Your task to perform on an android device: Show me the alarms in the clock app Image 0: 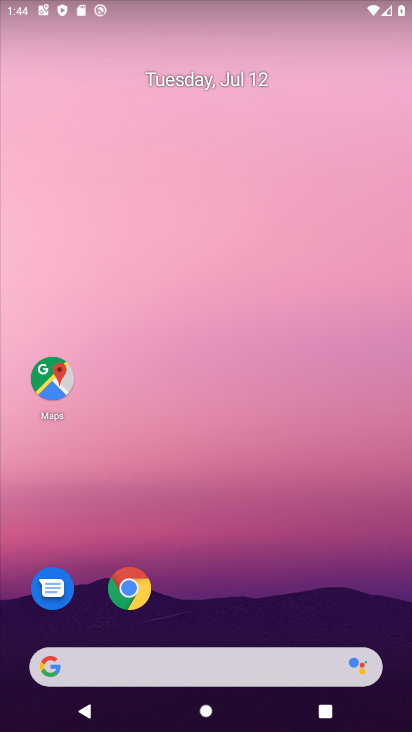
Step 0: drag from (162, 588) to (219, 172)
Your task to perform on an android device: Show me the alarms in the clock app Image 1: 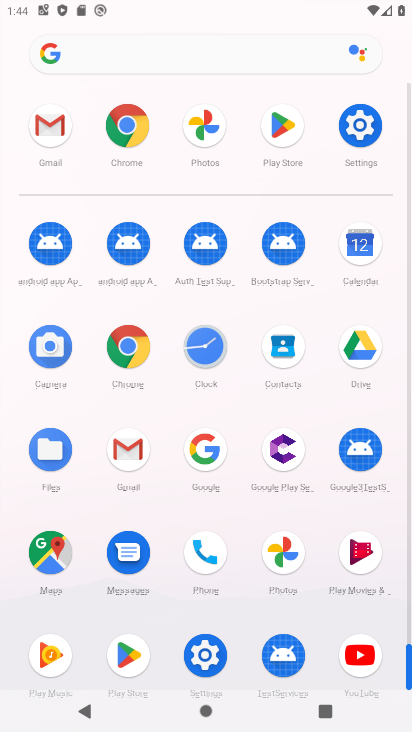
Step 1: click (213, 352)
Your task to perform on an android device: Show me the alarms in the clock app Image 2: 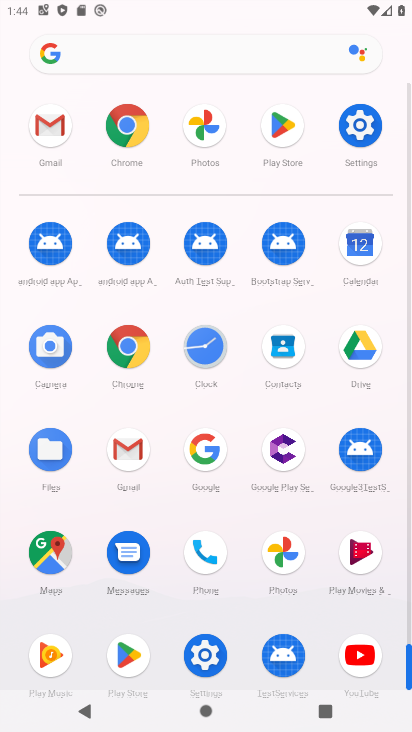
Step 2: click (211, 351)
Your task to perform on an android device: Show me the alarms in the clock app Image 3: 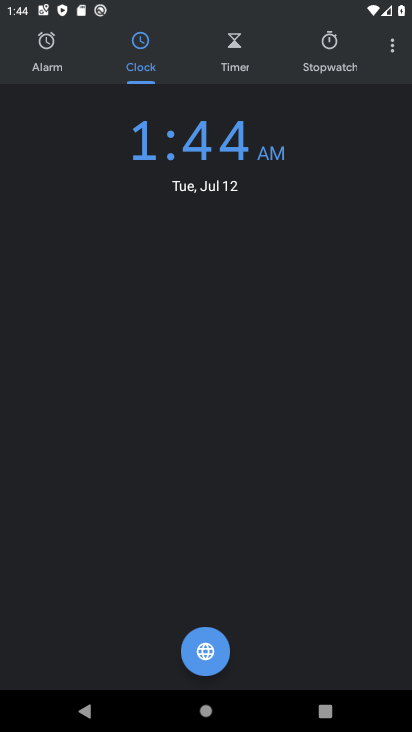
Step 3: click (262, 356)
Your task to perform on an android device: Show me the alarms in the clock app Image 4: 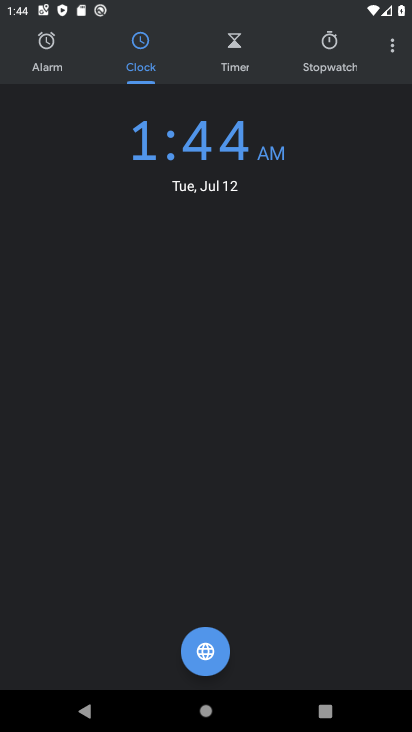
Step 4: click (252, 270)
Your task to perform on an android device: Show me the alarms in the clock app Image 5: 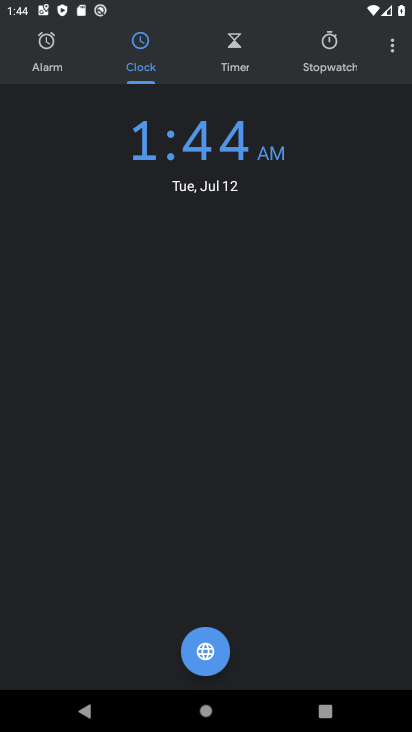
Step 5: click (314, 487)
Your task to perform on an android device: Show me the alarms in the clock app Image 6: 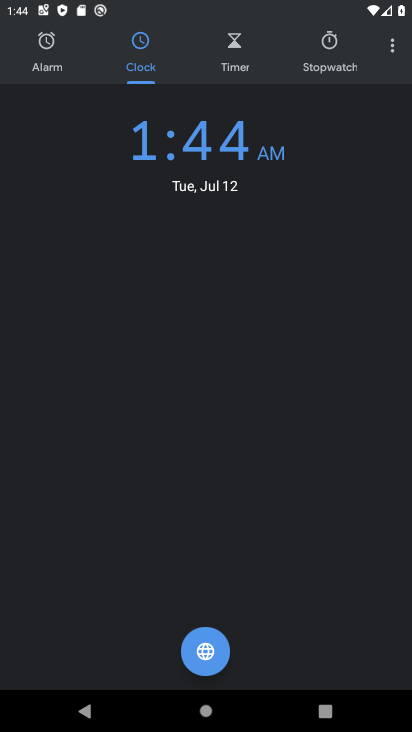
Step 6: click (72, 55)
Your task to perform on an android device: Show me the alarms in the clock app Image 7: 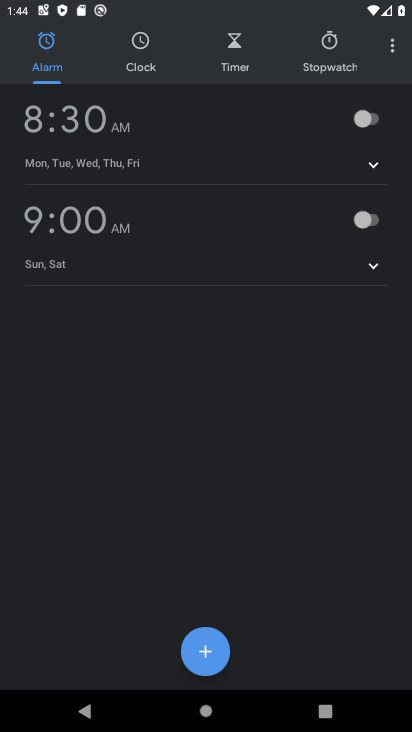
Step 7: click (65, 60)
Your task to perform on an android device: Show me the alarms in the clock app Image 8: 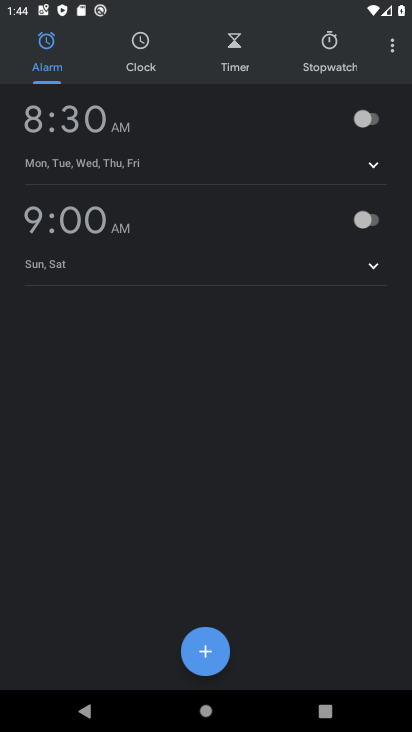
Step 8: task complete